Your task to perform on an android device: check the backup settings in the google photos Image 0: 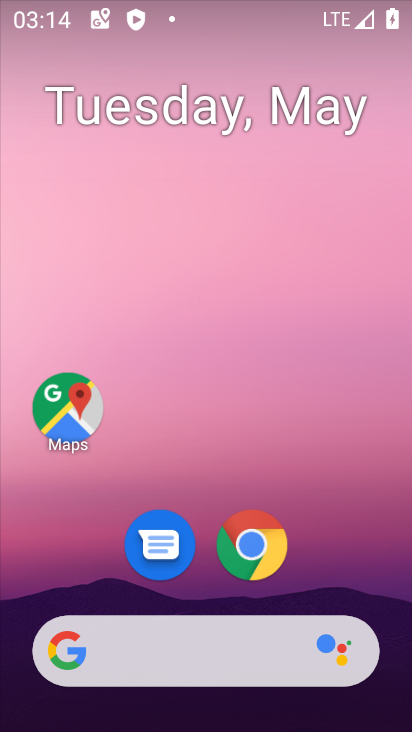
Step 0: drag from (393, 642) to (342, 106)
Your task to perform on an android device: check the backup settings in the google photos Image 1: 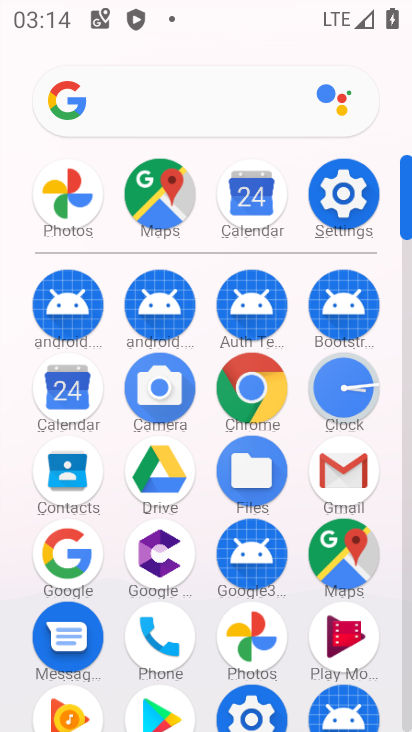
Step 1: click (254, 638)
Your task to perform on an android device: check the backup settings in the google photos Image 2: 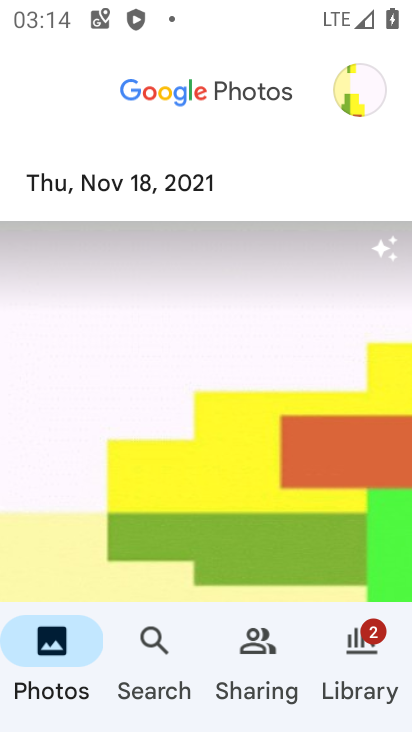
Step 2: click (356, 101)
Your task to perform on an android device: check the backup settings in the google photos Image 3: 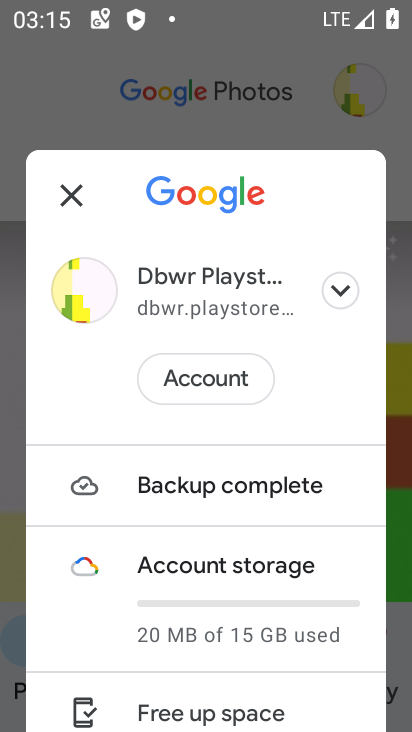
Step 3: drag from (328, 582) to (314, 220)
Your task to perform on an android device: check the backup settings in the google photos Image 4: 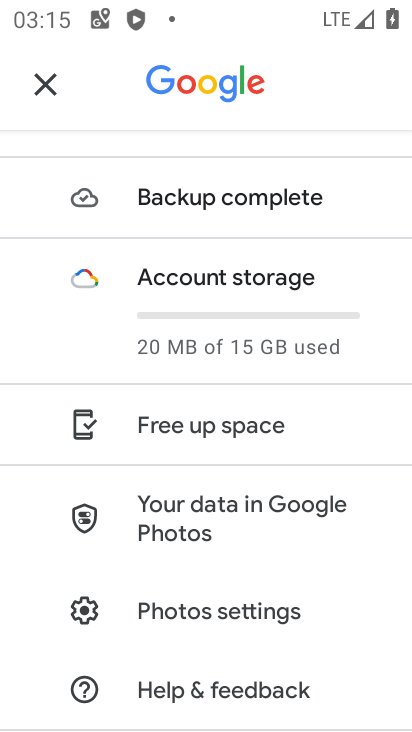
Step 4: click (209, 605)
Your task to perform on an android device: check the backup settings in the google photos Image 5: 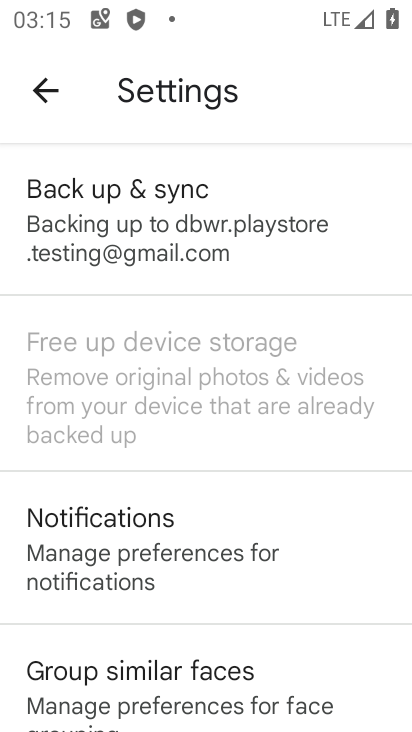
Step 5: click (136, 215)
Your task to perform on an android device: check the backup settings in the google photos Image 6: 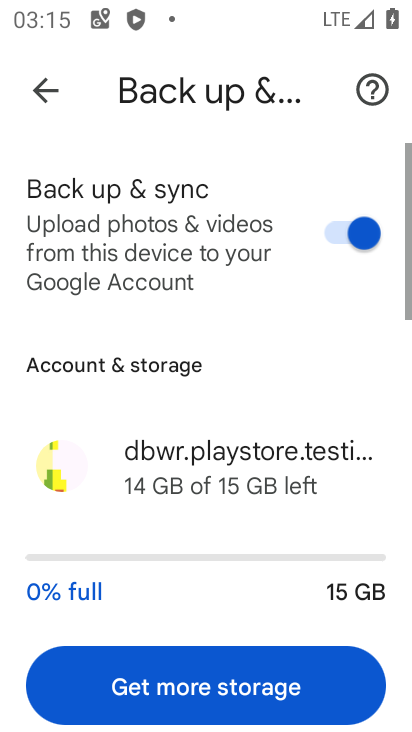
Step 6: task complete